Your task to perform on an android device: Open the stopwatch Image 0: 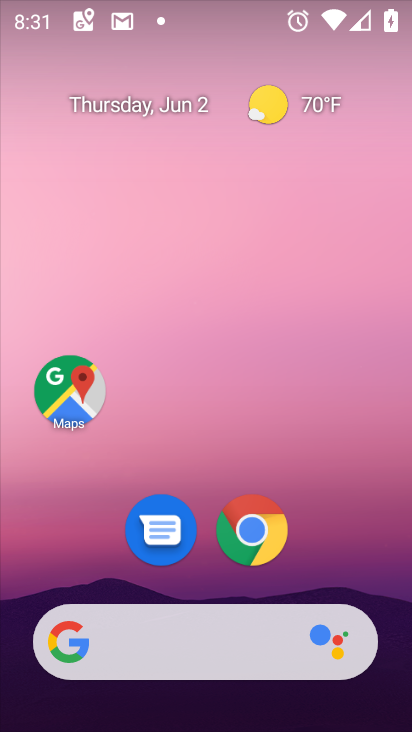
Step 0: drag from (169, 610) to (155, 178)
Your task to perform on an android device: Open the stopwatch Image 1: 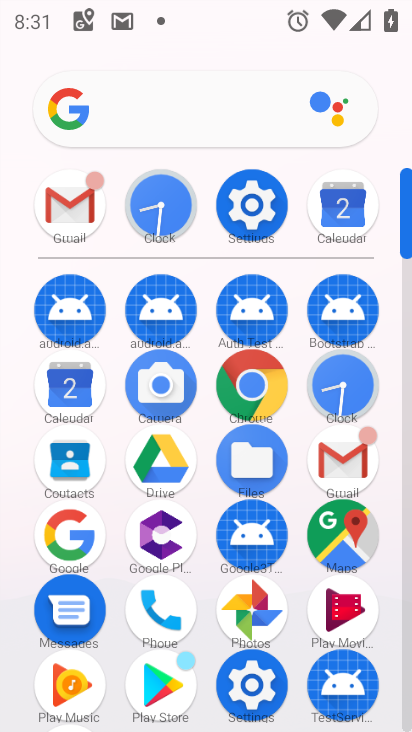
Step 1: click (361, 401)
Your task to perform on an android device: Open the stopwatch Image 2: 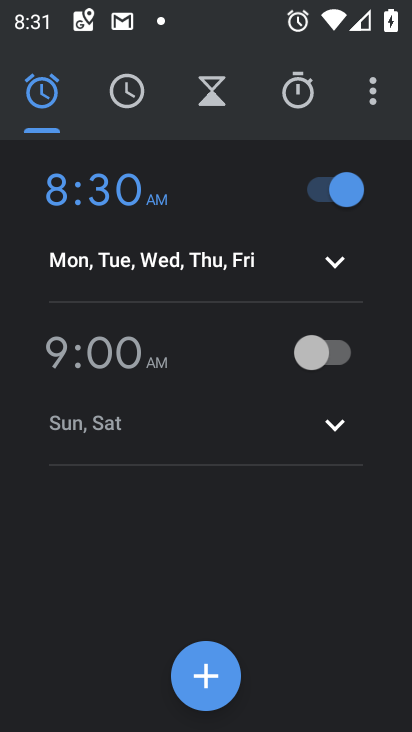
Step 2: click (299, 98)
Your task to perform on an android device: Open the stopwatch Image 3: 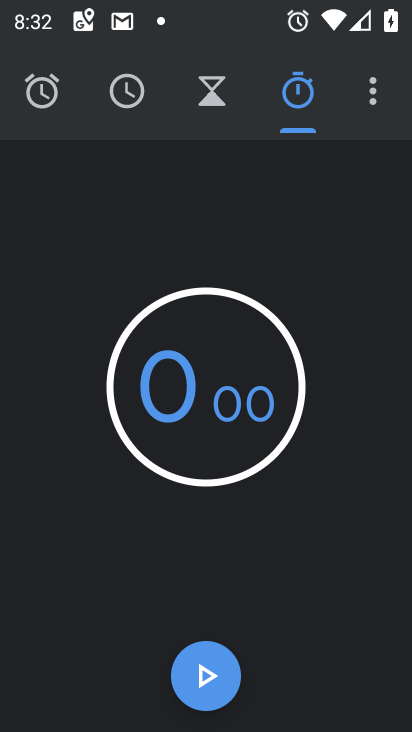
Step 3: task complete